Your task to perform on an android device: Toggle the flashlight Image 0: 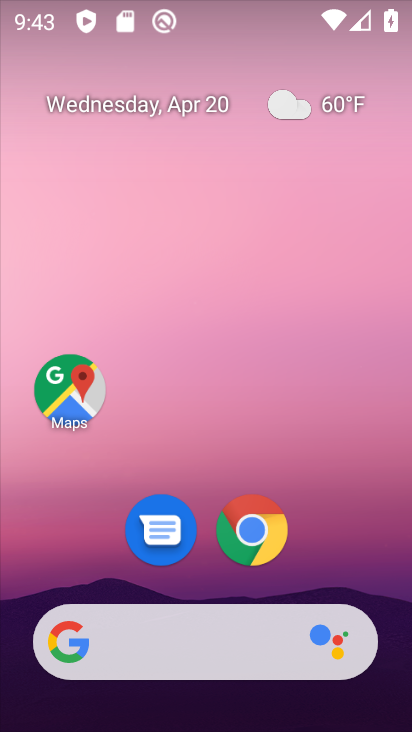
Step 0: drag from (326, 529) to (296, 59)
Your task to perform on an android device: Toggle the flashlight Image 1: 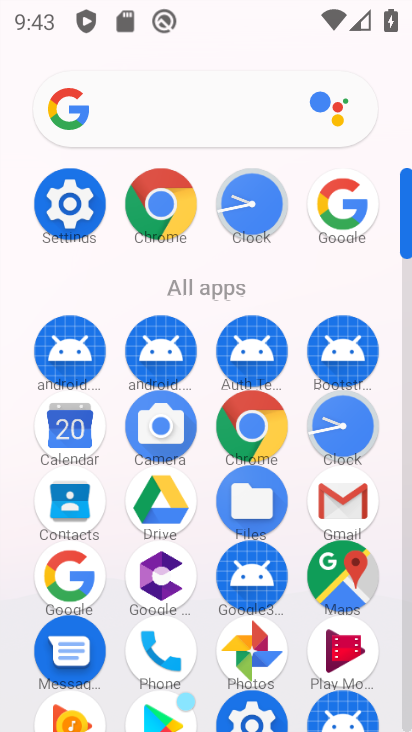
Step 1: click (70, 190)
Your task to perform on an android device: Toggle the flashlight Image 2: 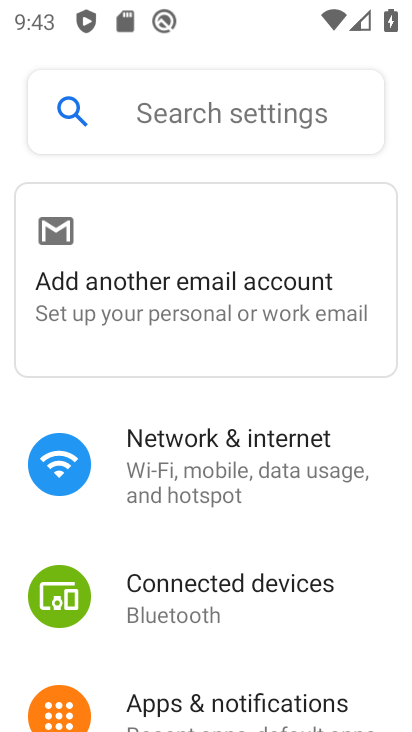
Step 2: click (131, 120)
Your task to perform on an android device: Toggle the flashlight Image 3: 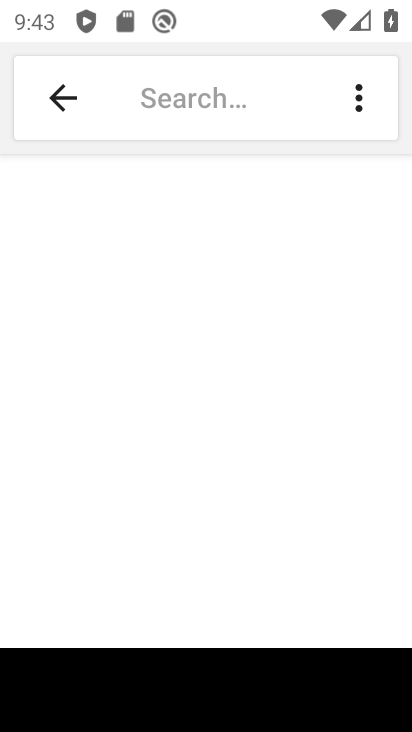
Step 3: type "flashlight"
Your task to perform on an android device: Toggle the flashlight Image 4: 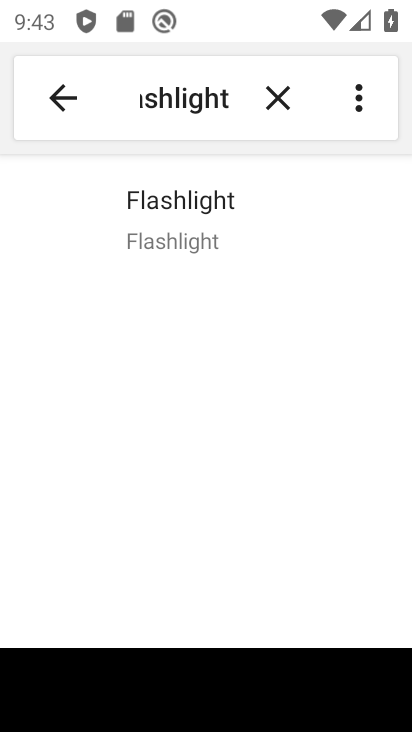
Step 4: click (196, 189)
Your task to perform on an android device: Toggle the flashlight Image 5: 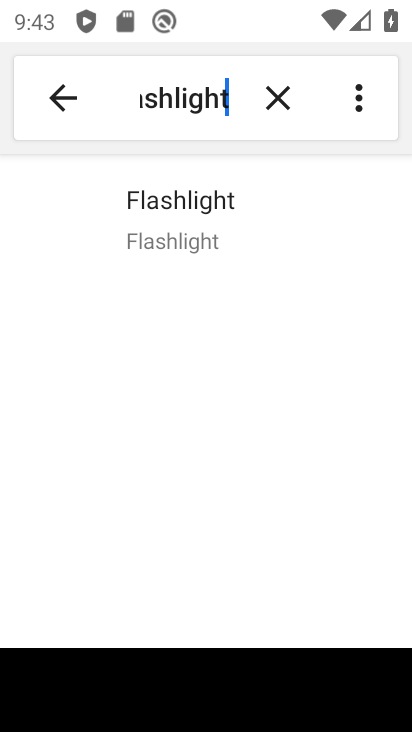
Step 5: task complete